Your task to perform on an android device: toggle translation in the chrome app Image 0: 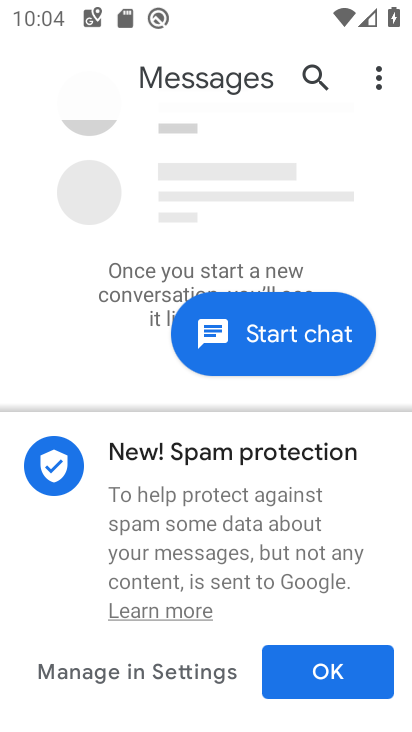
Step 0: press home button
Your task to perform on an android device: toggle translation in the chrome app Image 1: 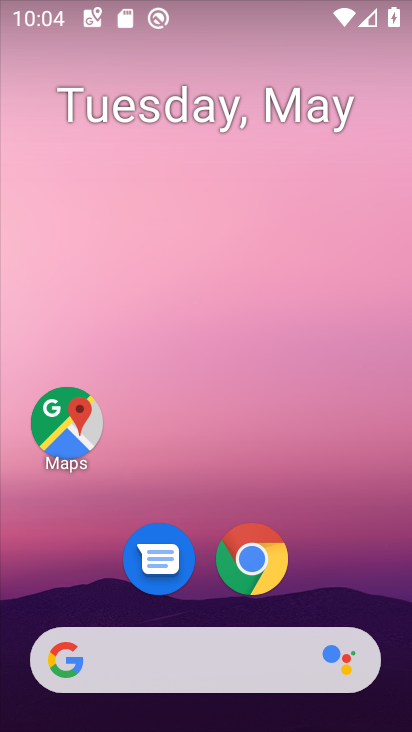
Step 1: drag from (397, 656) to (298, 87)
Your task to perform on an android device: toggle translation in the chrome app Image 2: 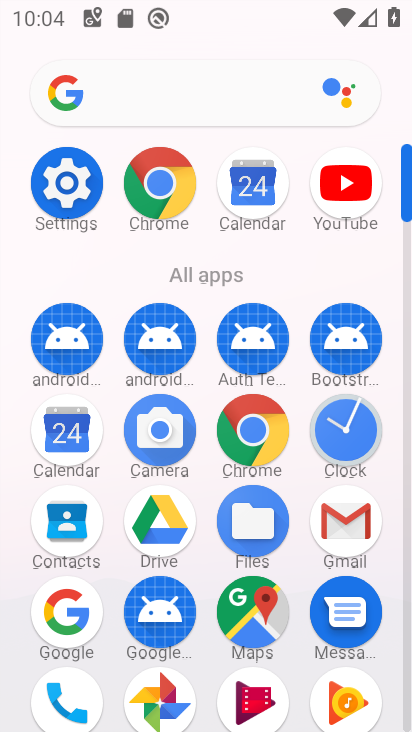
Step 2: click (145, 174)
Your task to perform on an android device: toggle translation in the chrome app Image 3: 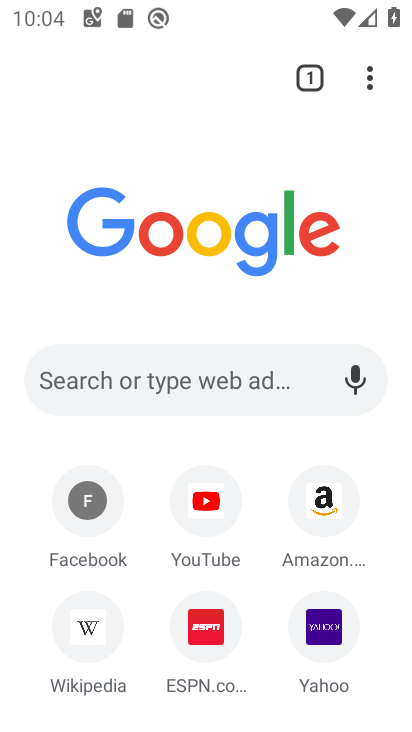
Step 3: click (366, 74)
Your task to perform on an android device: toggle translation in the chrome app Image 4: 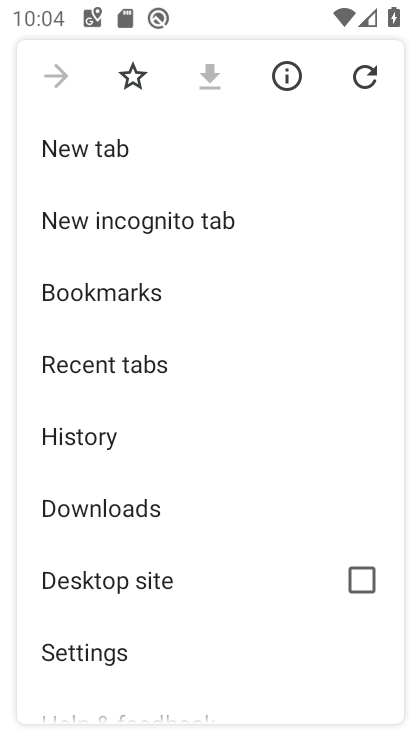
Step 4: drag from (206, 661) to (286, 151)
Your task to perform on an android device: toggle translation in the chrome app Image 5: 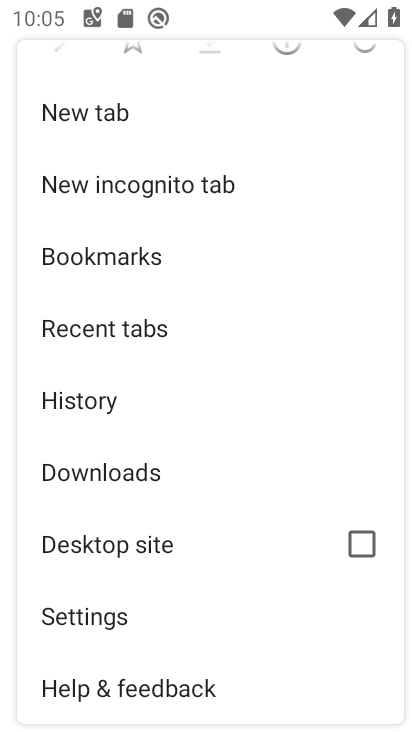
Step 5: click (167, 615)
Your task to perform on an android device: toggle translation in the chrome app Image 6: 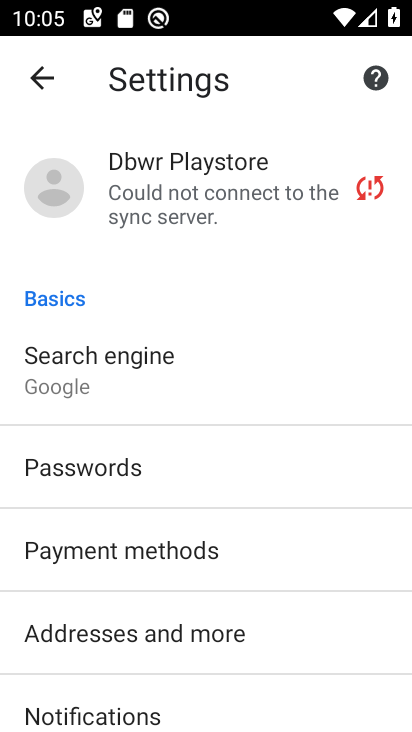
Step 6: drag from (139, 678) to (251, 96)
Your task to perform on an android device: toggle translation in the chrome app Image 7: 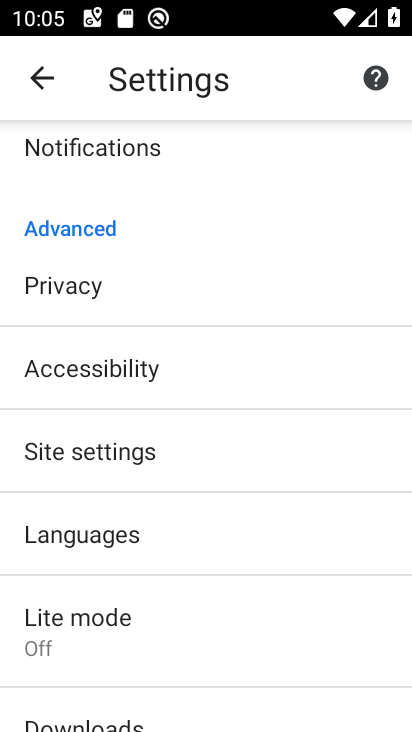
Step 7: click (154, 531)
Your task to perform on an android device: toggle translation in the chrome app Image 8: 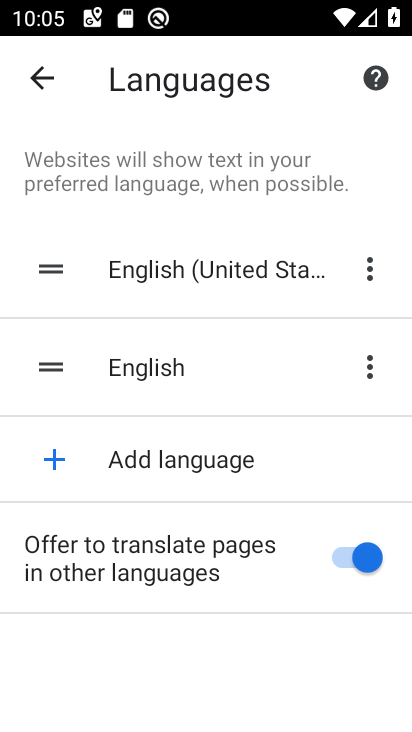
Step 8: click (289, 550)
Your task to perform on an android device: toggle translation in the chrome app Image 9: 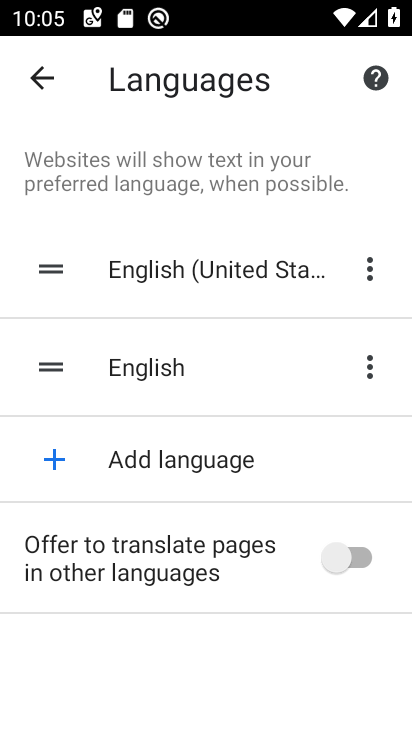
Step 9: task complete